Your task to perform on an android device: check android version Image 0: 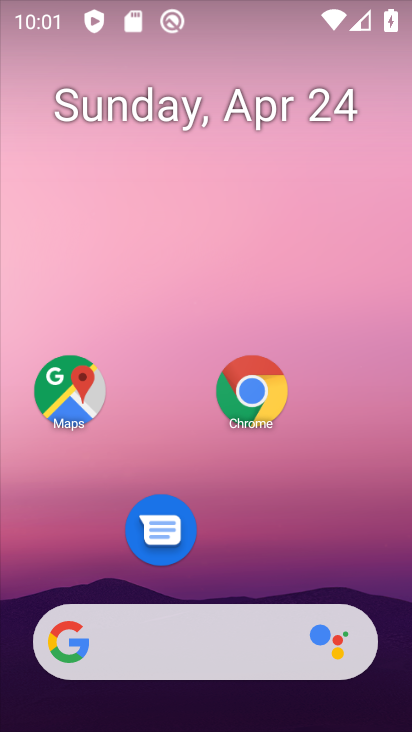
Step 0: drag from (196, 584) to (228, 138)
Your task to perform on an android device: check android version Image 1: 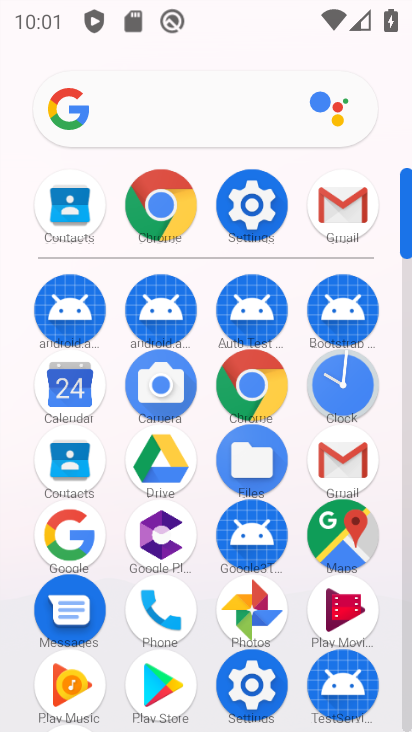
Step 1: click (255, 685)
Your task to perform on an android device: check android version Image 2: 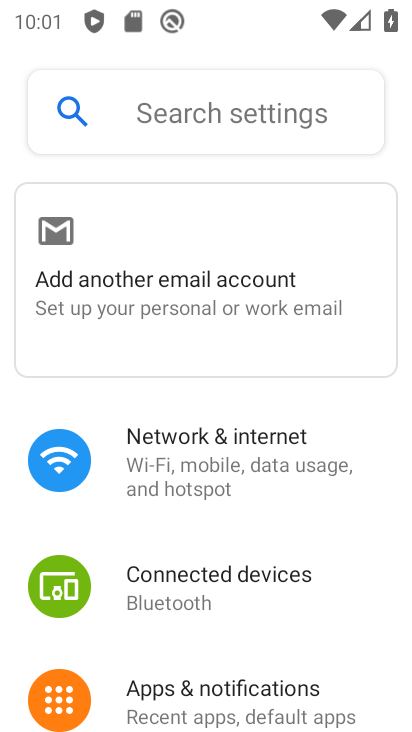
Step 2: drag from (227, 608) to (233, 301)
Your task to perform on an android device: check android version Image 3: 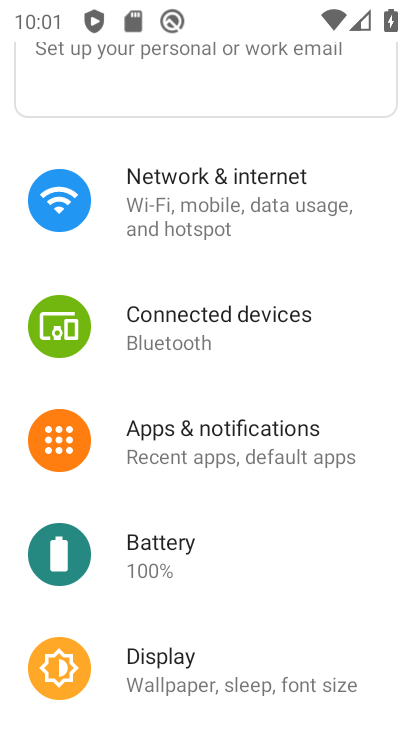
Step 3: drag from (199, 662) to (303, 37)
Your task to perform on an android device: check android version Image 4: 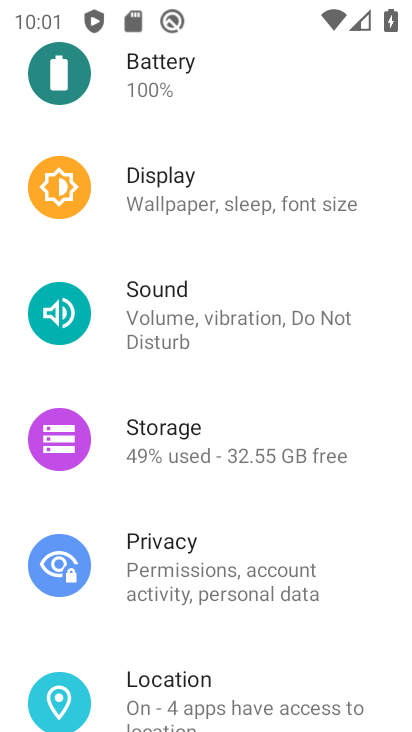
Step 4: drag from (156, 630) to (140, 72)
Your task to perform on an android device: check android version Image 5: 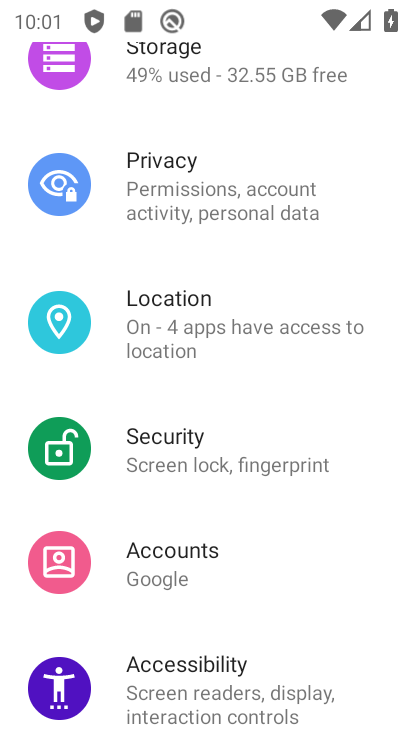
Step 5: drag from (262, 650) to (224, 301)
Your task to perform on an android device: check android version Image 6: 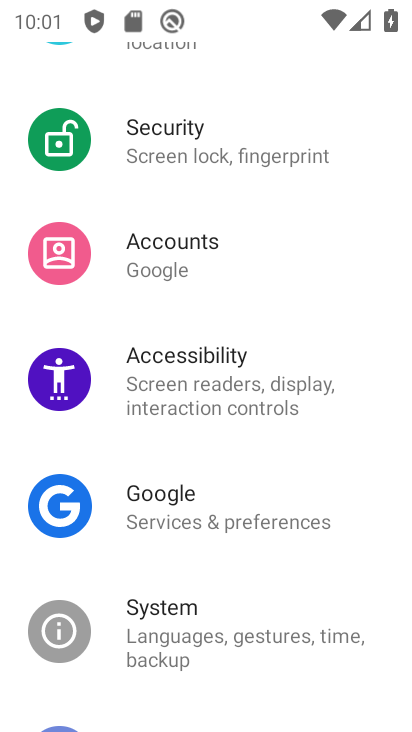
Step 6: drag from (187, 610) to (183, 233)
Your task to perform on an android device: check android version Image 7: 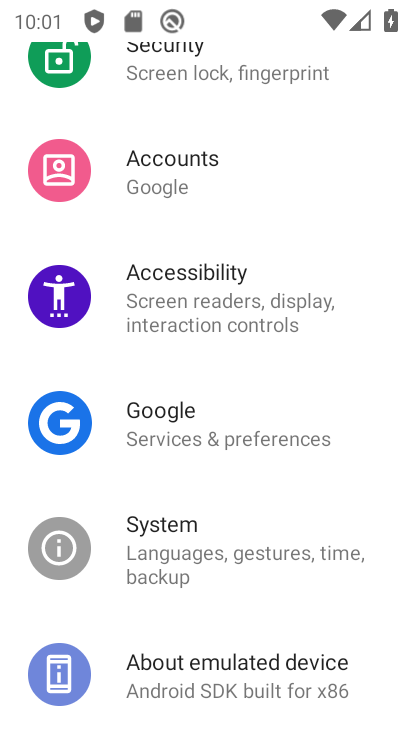
Step 7: drag from (96, 648) to (99, 219)
Your task to perform on an android device: check android version Image 8: 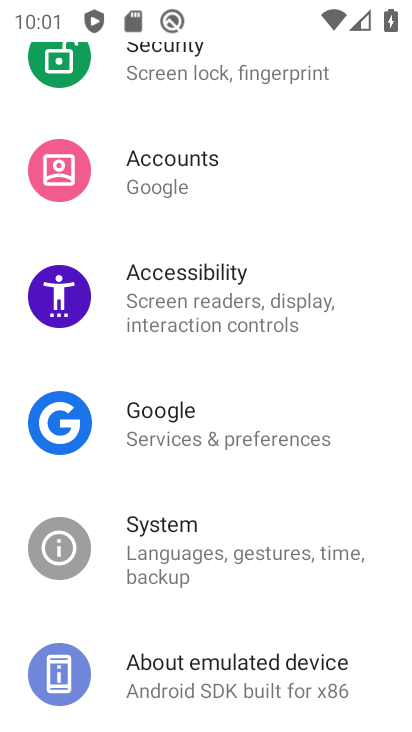
Step 8: drag from (259, 701) to (195, 335)
Your task to perform on an android device: check android version Image 9: 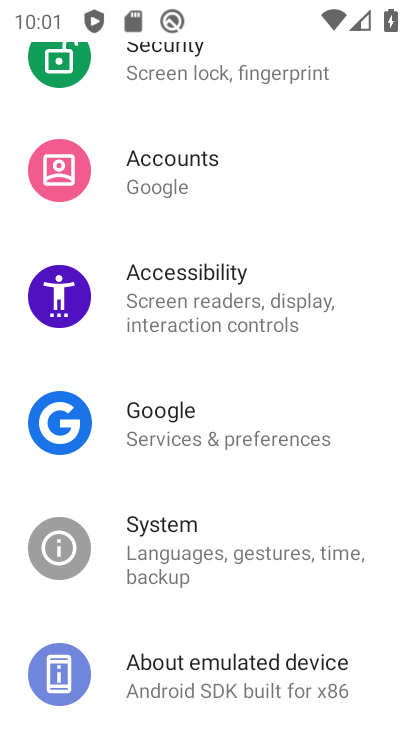
Step 9: click (323, 680)
Your task to perform on an android device: check android version Image 10: 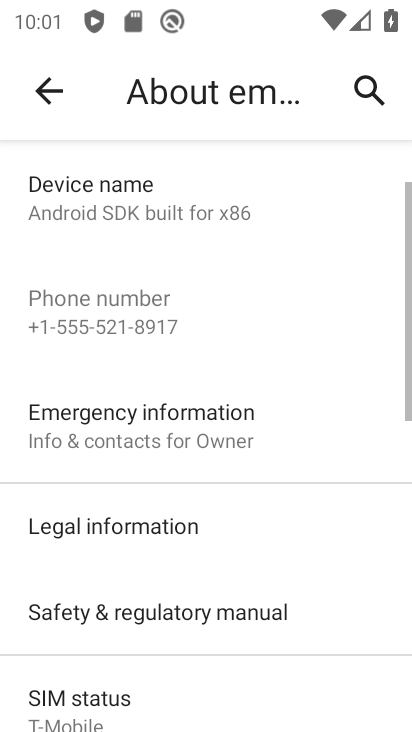
Step 10: drag from (173, 690) to (99, 214)
Your task to perform on an android device: check android version Image 11: 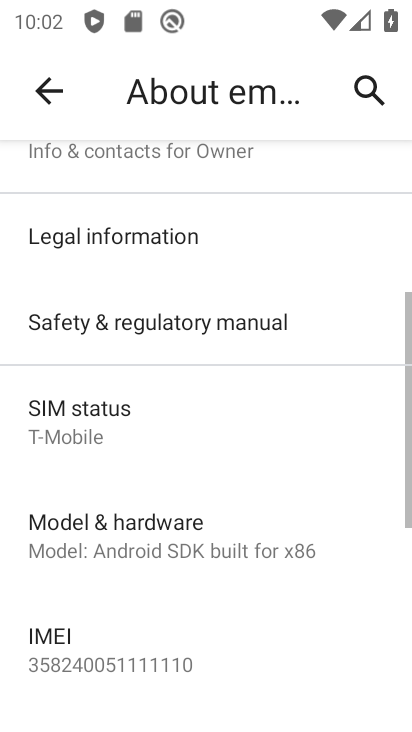
Step 11: drag from (201, 706) to (169, 255)
Your task to perform on an android device: check android version Image 12: 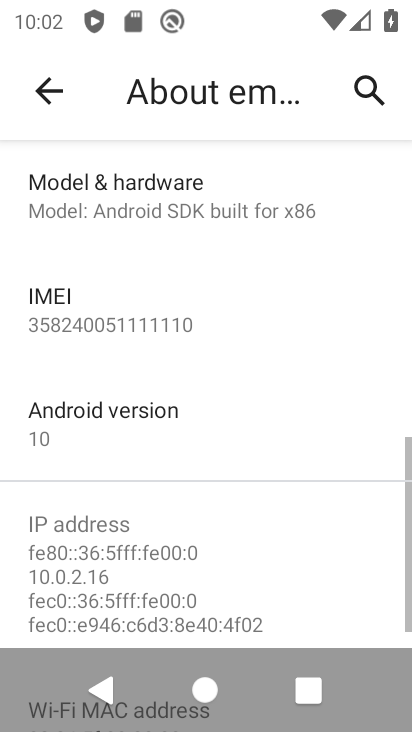
Step 12: click (182, 432)
Your task to perform on an android device: check android version Image 13: 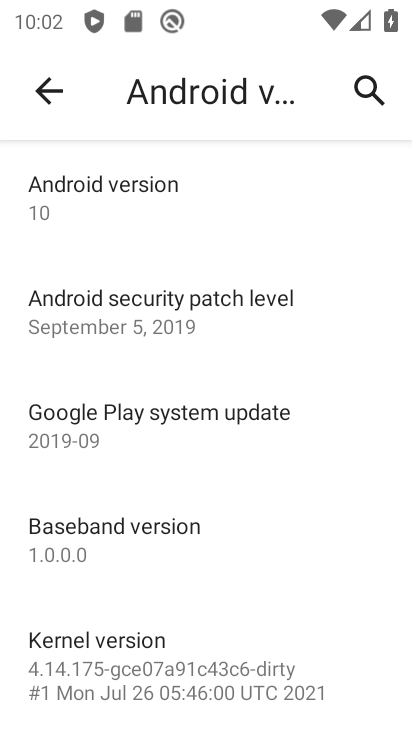
Step 13: task complete